Your task to perform on an android device: move a message to another label in the gmail app Image 0: 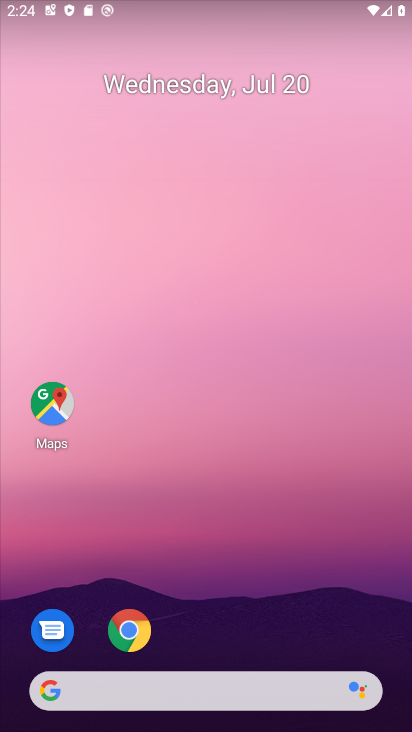
Step 0: drag from (359, 620) to (364, 132)
Your task to perform on an android device: move a message to another label in the gmail app Image 1: 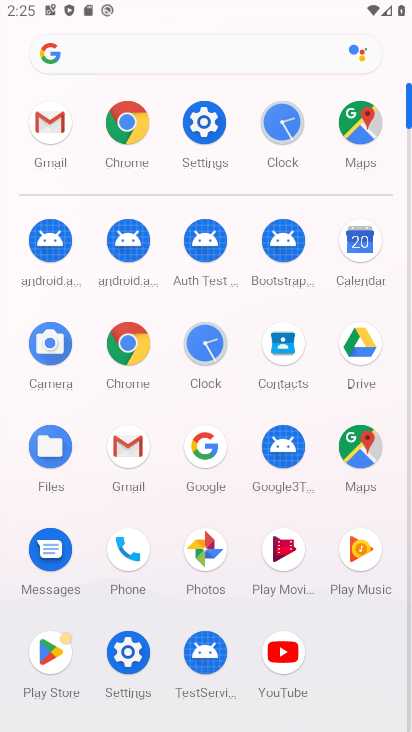
Step 1: click (129, 445)
Your task to perform on an android device: move a message to another label in the gmail app Image 2: 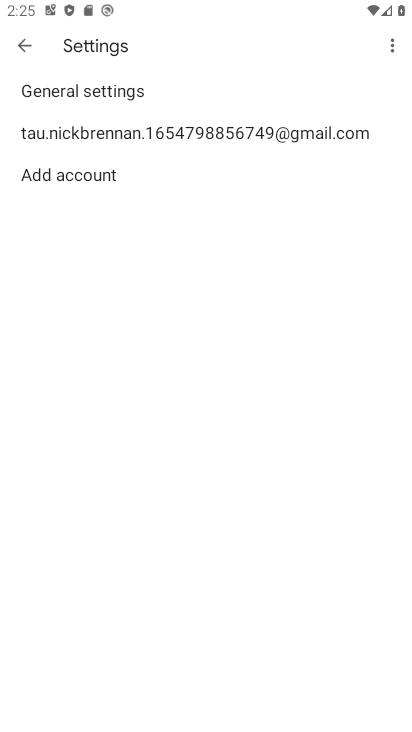
Step 2: press back button
Your task to perform on an android device: move a message to another label in the gmail app Image 3: 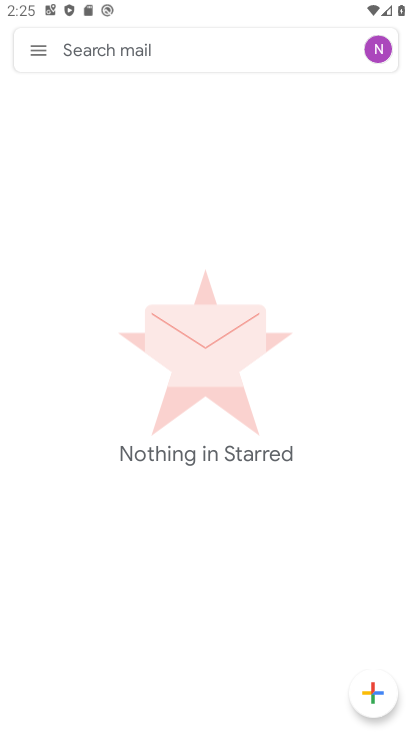
Step 3: click (44, 46)
Your task to perform on an android device: move a message to another label in the gmail app Image 4: 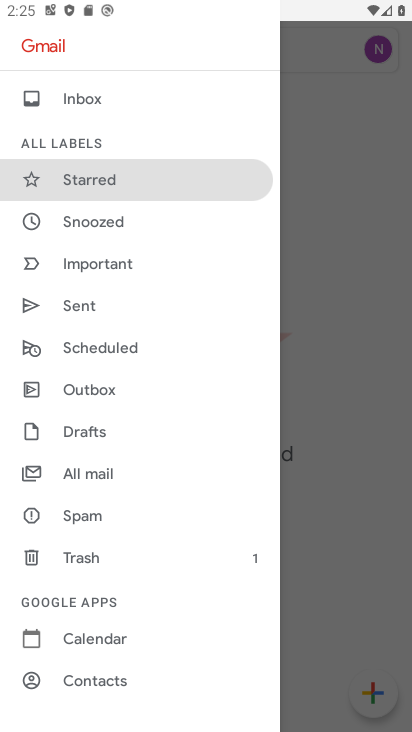
Step 4: drag from (197, 248) to (205, 371)
Your task to perform on an android device: move a message to another label in the gmail app Image 5: 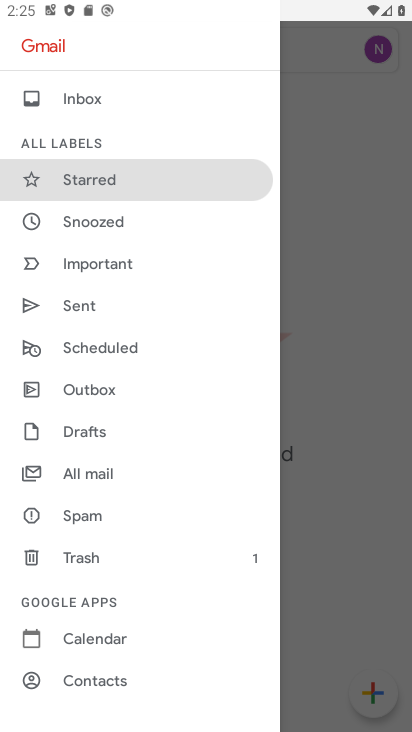
Step 5: click (118, 103)
Your task to perform on an android device: move a message to another label in the gmail app Image 6: 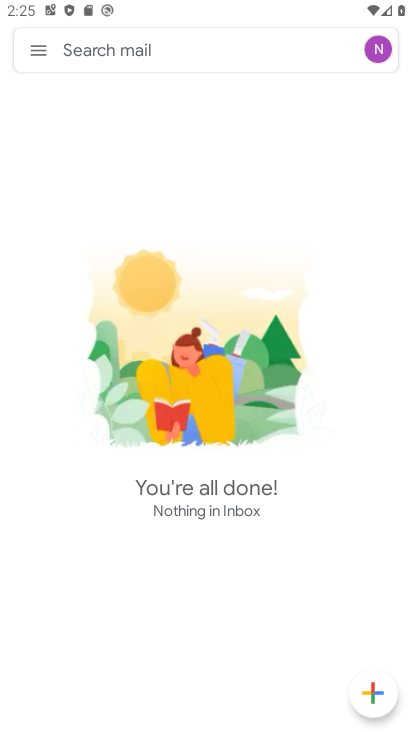
Step 6: task complete